Your task to perform on an android device: Open Chrome and go to settings Image 0: 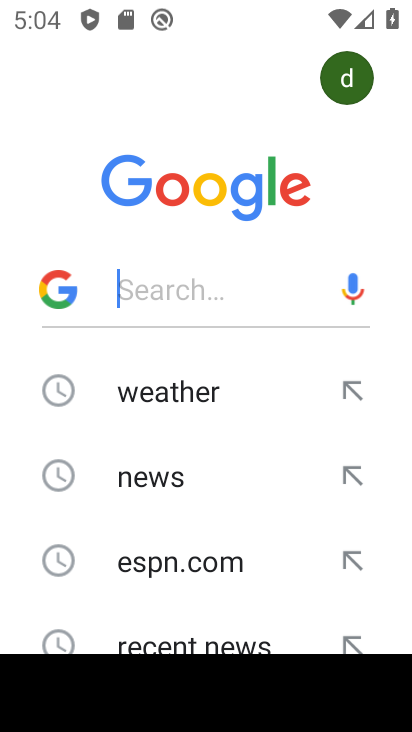
Step 0: click (169, 476)
Your task to perform on an android device: Open Chrome and go to settings Image 1: 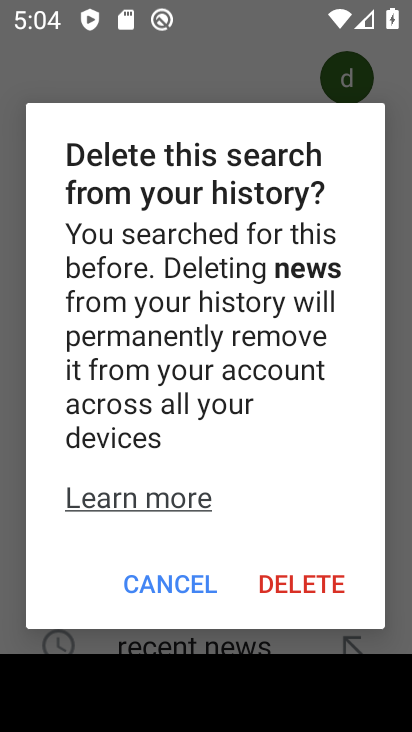
Step 1: press home button
Your task to perform on an android device: Open Chrome and go to settings Image 2: 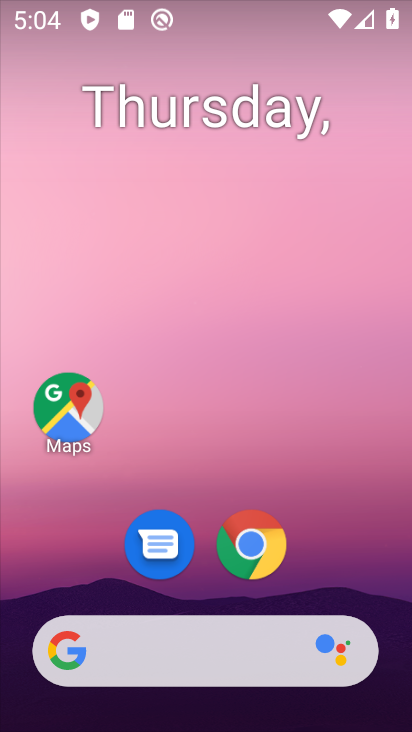
Step 2: click (271, 573)
Your task to perform on an android device: Open Chrome and go to settings Image 3: 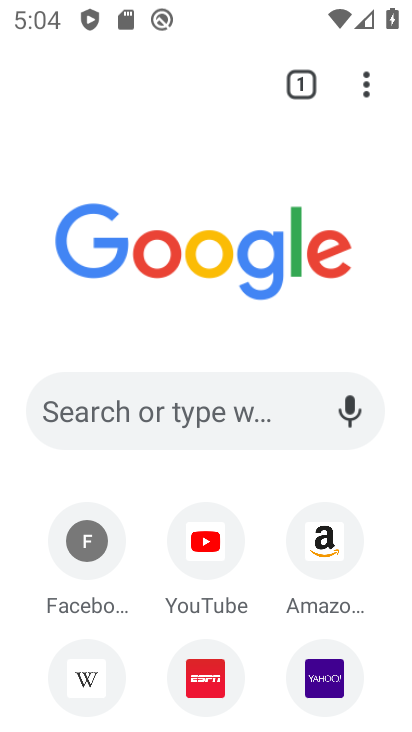
Step 3: click (367, 81)
Your task to perform on an android device: Open Chrome and go to settings Image 4: 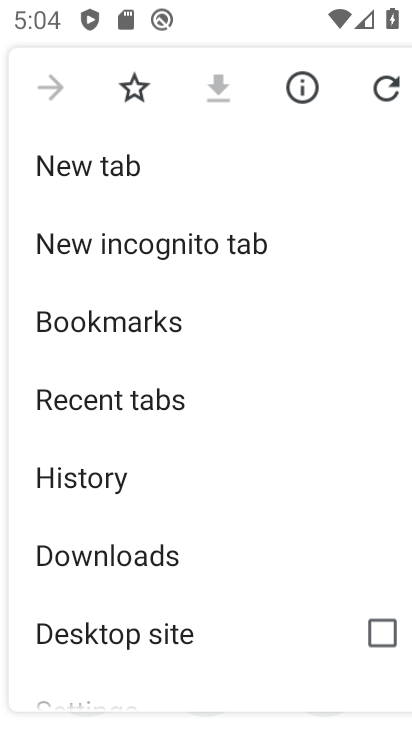
Step 4: drag from (172, 605) to (224, 158)
Your task to perform on an android device: Open Chrome and go to settings Image 5: 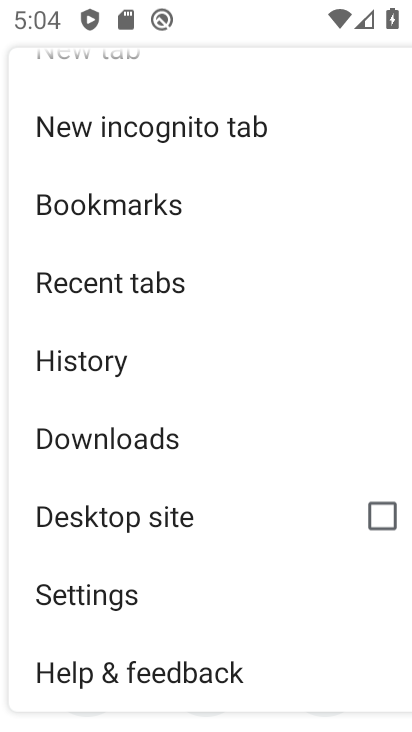
Step 5: click (132, 599)
Your task to perform on an android device: Open Chrome and go to settings Image 6: 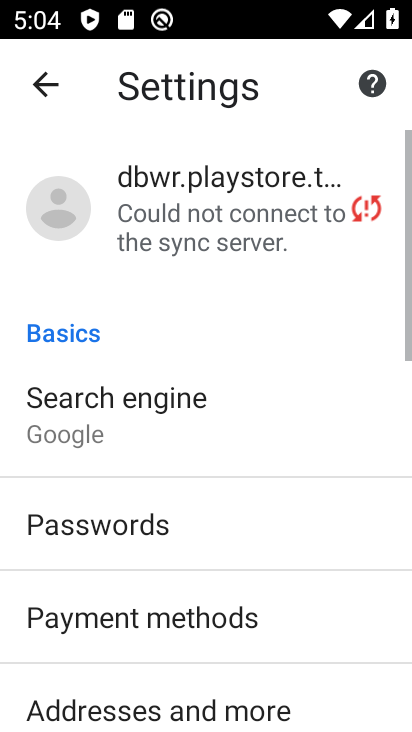
Step 6: task complete